Your task to perform on an android device: move a message to another label in the gmail app Image 0: 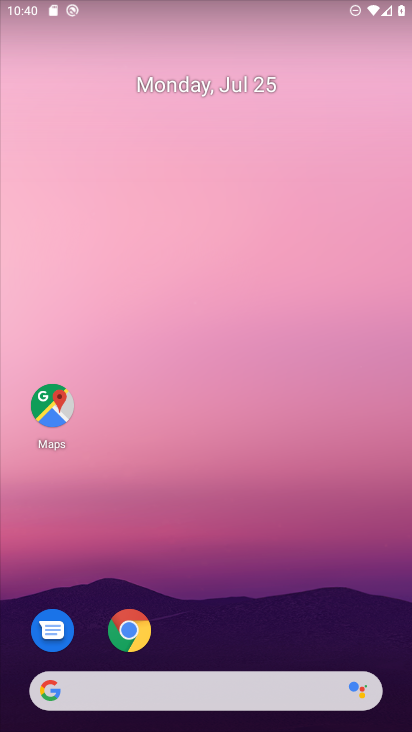
Step 0: drag from (329, 563) to (322, 70)
Your task to perform on an android device: move a message to another label in the gmail app Image 1: 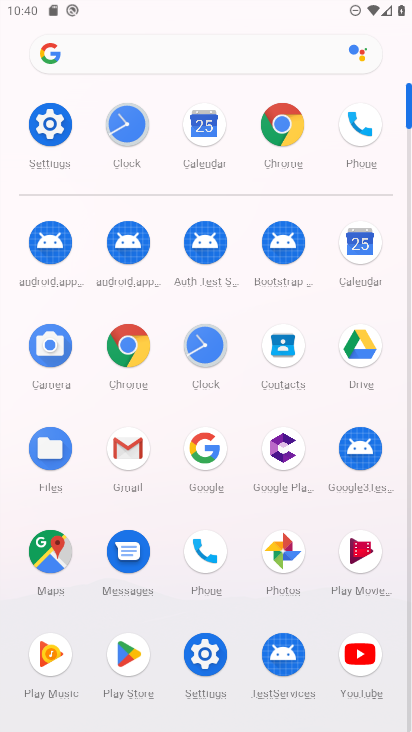
Step 1: click (134, 442)
Your task to perform on an android device: move a message to another label in the gmail app Image 2: 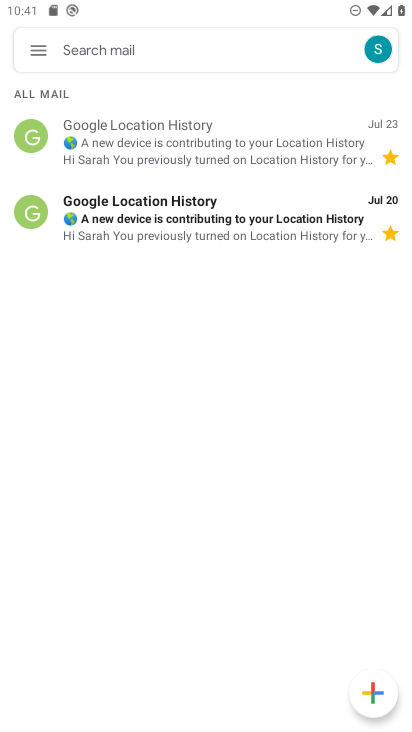
Step 2: click (227, 161)
Your task to perform on an android device: move a message to another label in the gmail app Image 3: 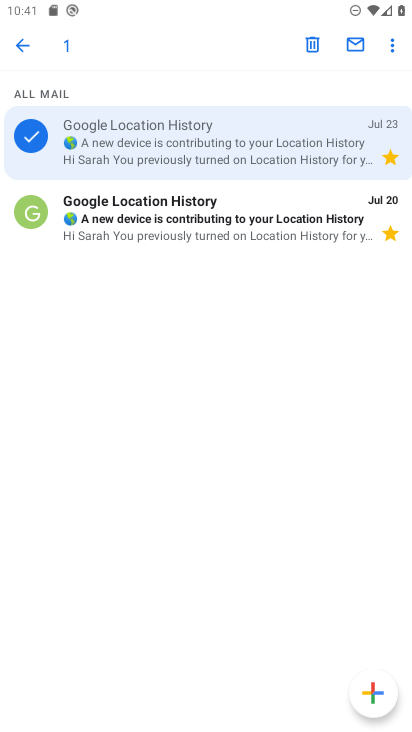
Step 3: click (397, 39)
Your task to perform on an android device: move a message to another label in the gmail app Image 4: 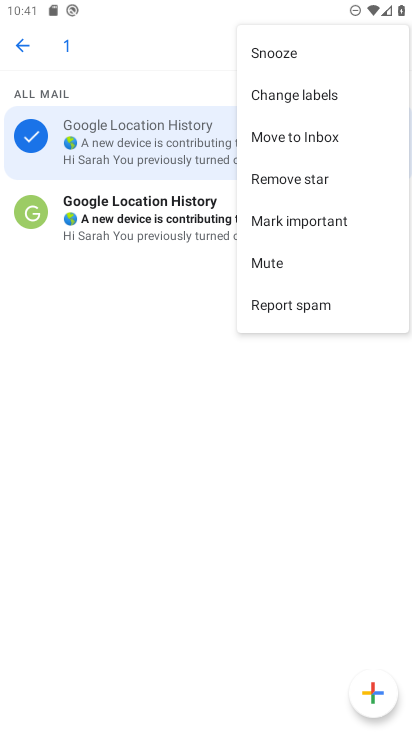
Step 4: click (333, 93)
Your task to perform on an android device: move a message to another label in the gmail app Image 5: 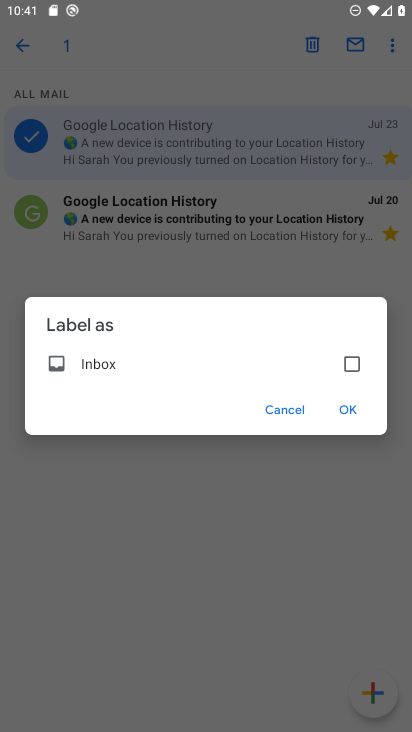
Step 5: click (356, 357)
Your task to perform on an android device: move a message to another label in the gmail app Image 6: 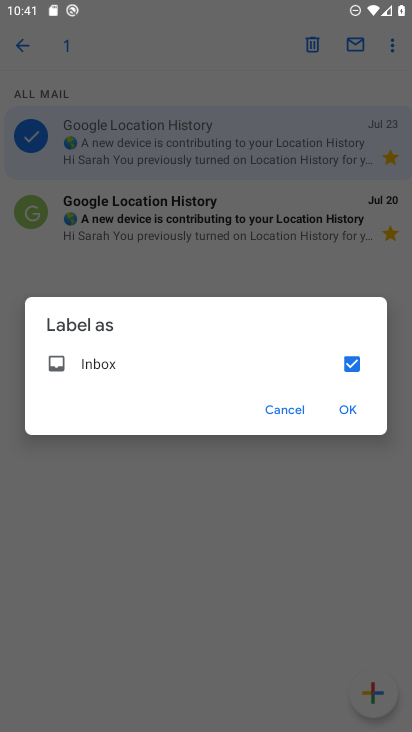
Step 6: click (359, 414)
Your task to perform on an android device: move a message to another label in the gmail app Image 7: 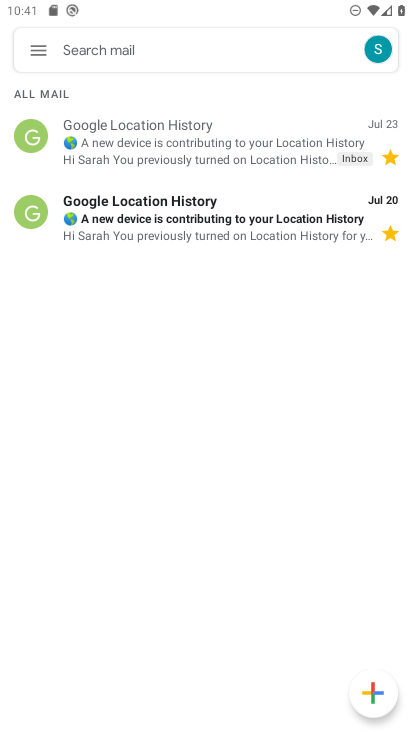
Step 7: task complete